Your task to perform on an android device: turn off wifi Image 0: 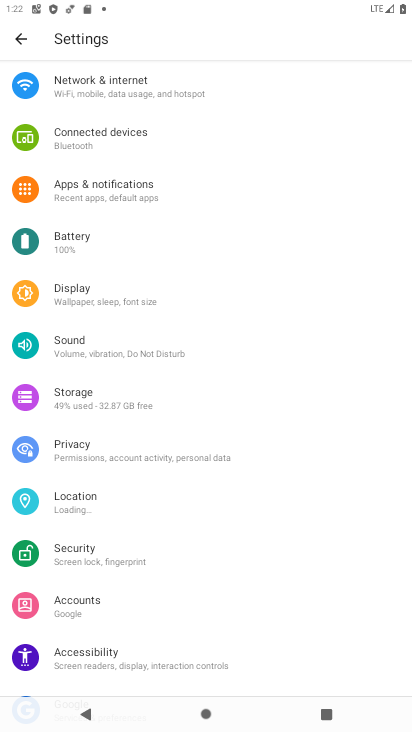
Step 0: click (155, 86)
Your task to perform on an android device: turn off wifi Image 1: 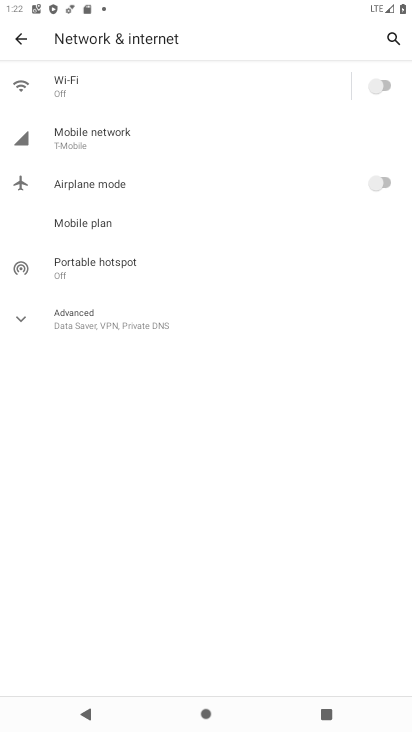
Step 1: task complete